Your task to perform on an android device: Search for vegetarian restaurants on Maps Image 0: 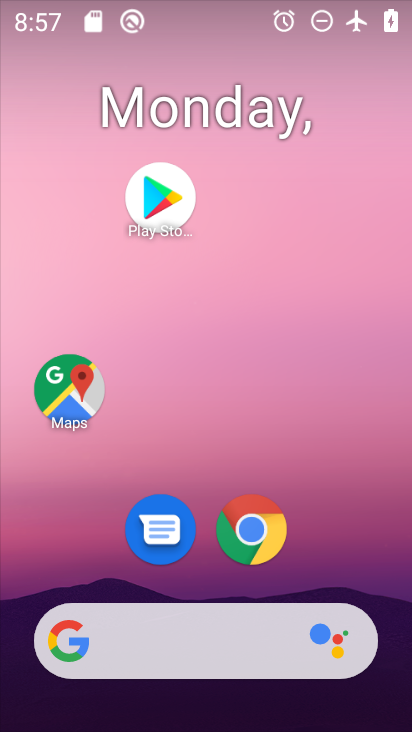
Step 0: click (69, 403)
Your task to perform on an android device: Search for vegetarian restaurants on Maps Image 1: 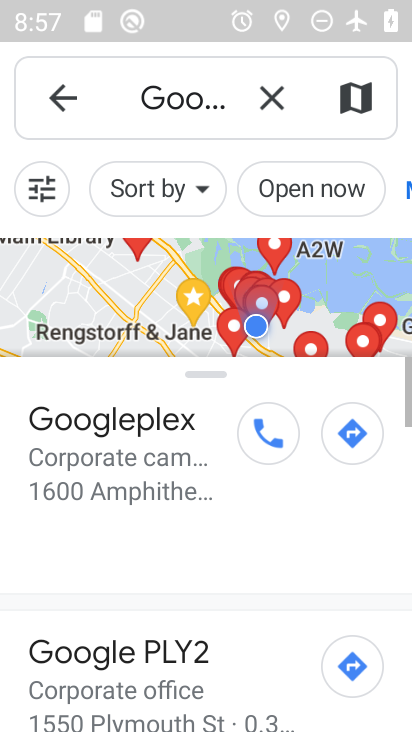
Step 1: click (262, 91)
Your task to perform on an android device: Search for vegetarian restaurants on Maps Image 2: 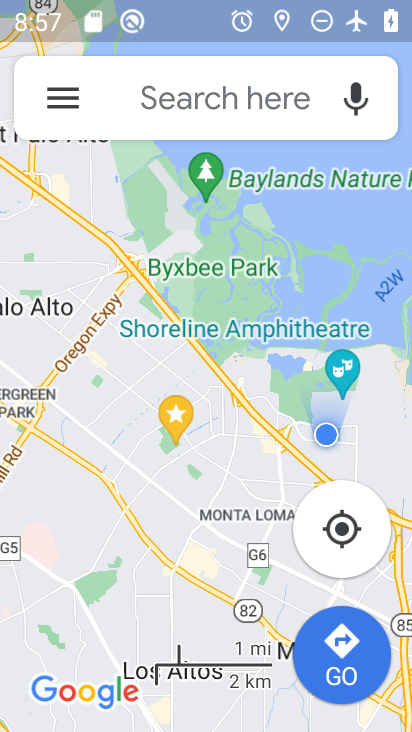
Step 2: click (206, 102)
Your task to perform on an android device: Search for vegetarian restaurants on Maps Image 3: 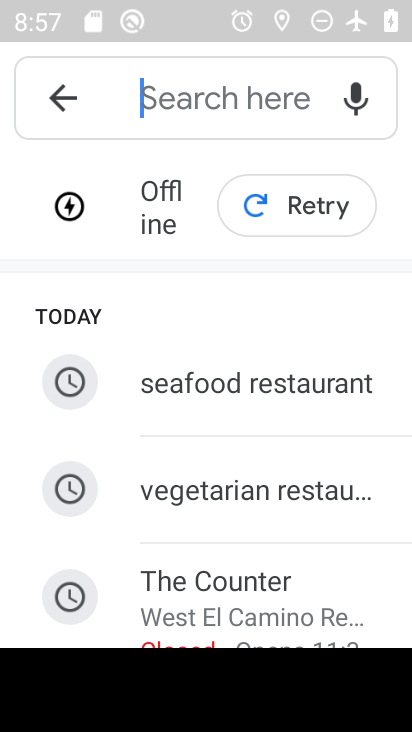
Step 3: click (192, 489)
Your task to perform on an android device: Search for vegetarian restaurants on Maps Image 4: 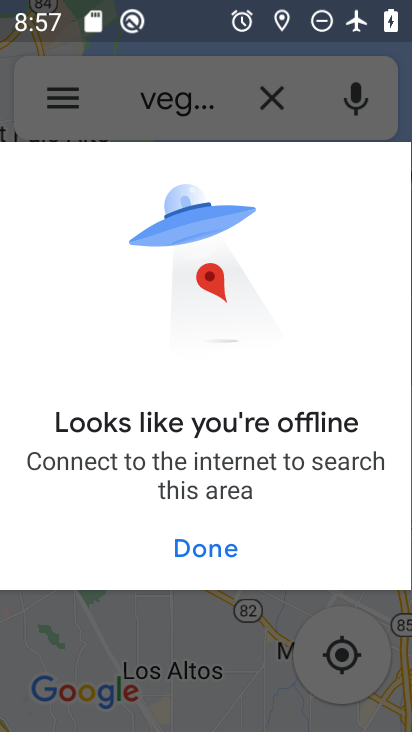
Step 4: click (211, 536)
Your task to perform on an android device: Search for vegetarian restaurants on Maps Image 5: 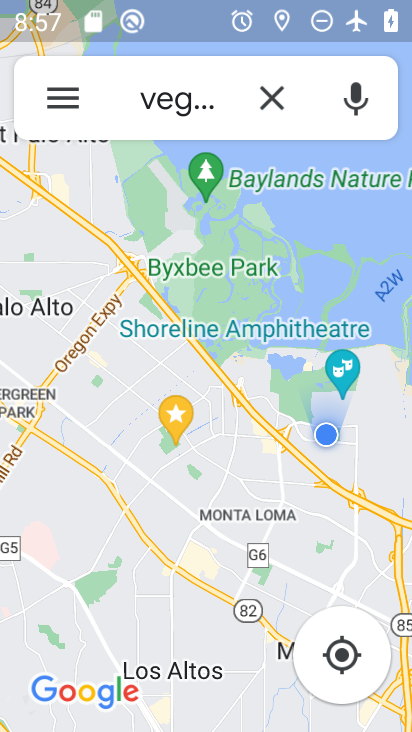
Step 5: task complete